Your task to perform on an android device: Turn on the flashlight Image 0: 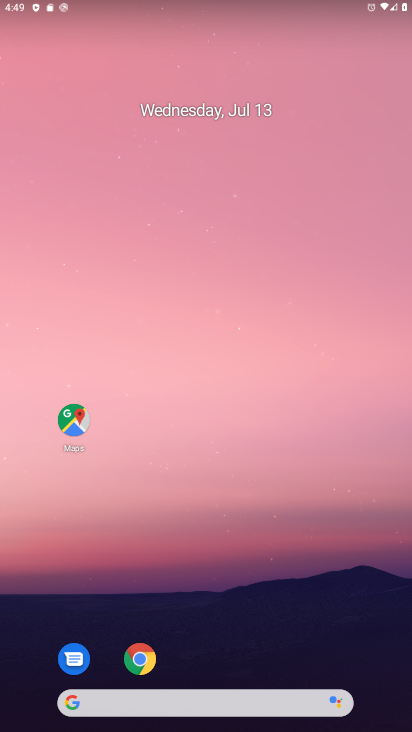
Step 0: drag from (254, 572) to (238, 155)
Your task to perform on an android device: Turn on the flashlight Image 1: 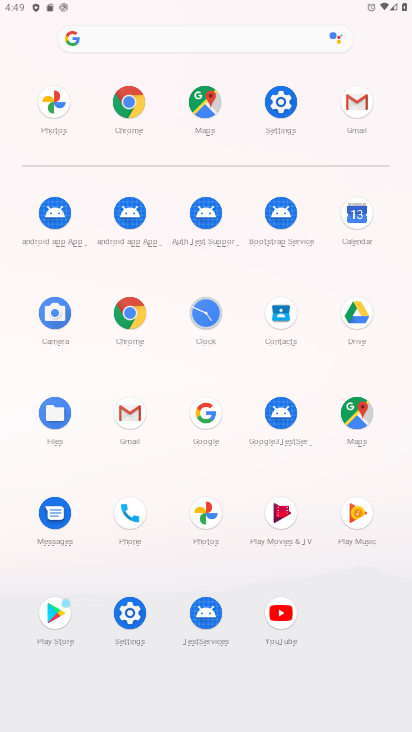
Step 1: click (125, 607)
Your task to perform on an android device: Turn on the flashlight Image 2: 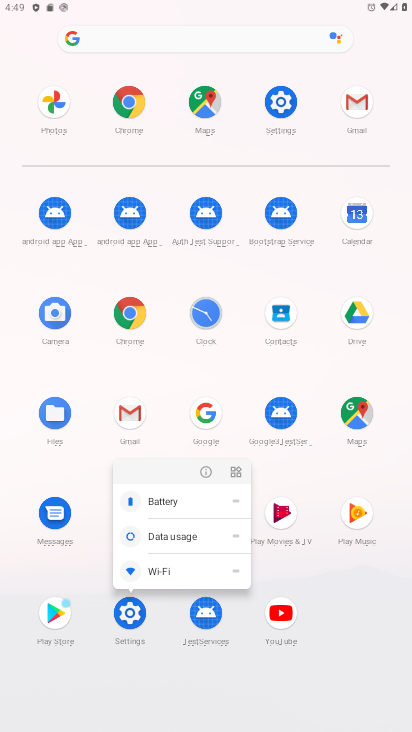
Step 2: click (128, 619)
Your task to perform on an android device: Turn on the flashlight Image 3: 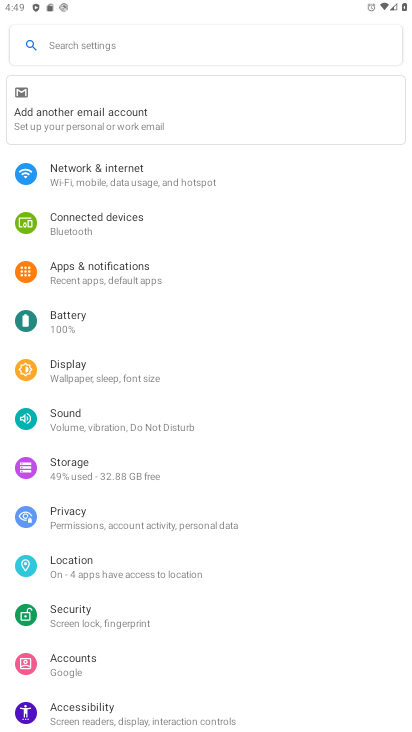
Step 3: click (76, 381)
Your task to perform on an android device: Turn on the flashlight Image 4: 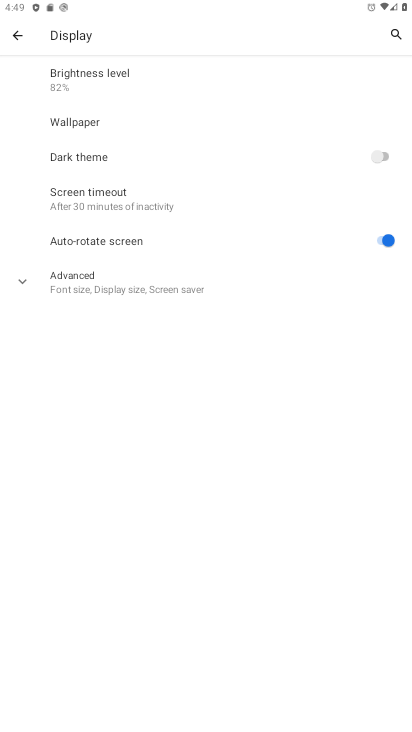
Step 4: task complete